Your task to perform on an android device: Open the music app Image 0: 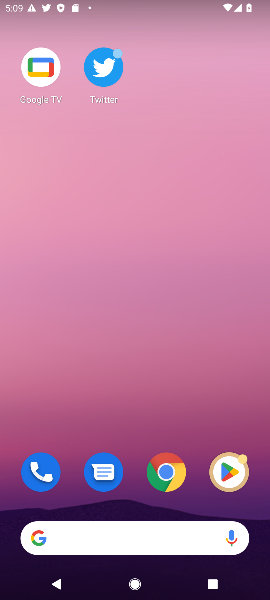
Step 0: click (224, 478)
Your task to perform on an android device: Open the music app Image 1: 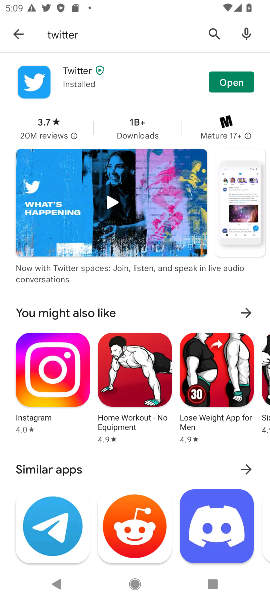
Step 1: click (217, 37)
Your task to perform on an android device: Open the music app Image 2: 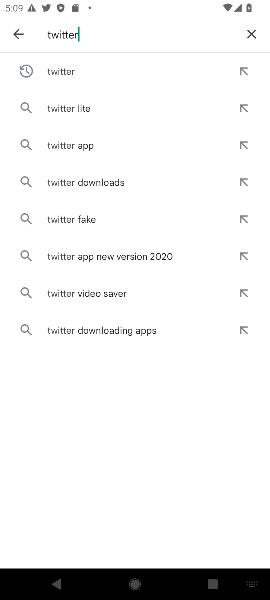
Step 2: click (255, 31)
Your task to perform on an android device: Open the music app Image 3: 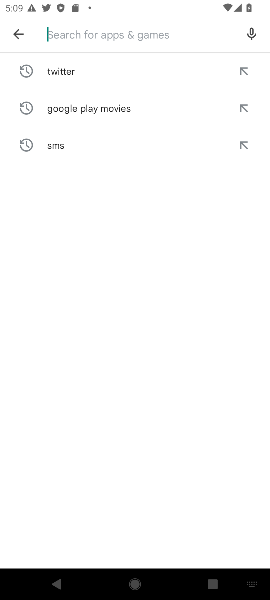
Step 3: type "music"
Your task to perform on an android device: Open the music app Image 4: 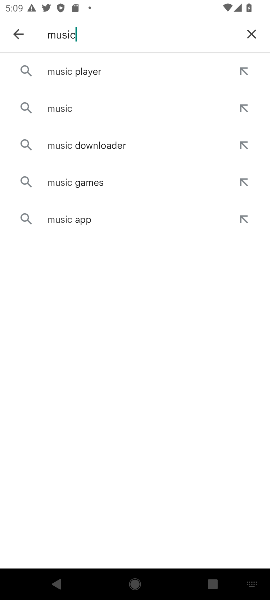
Step 4: click (102, 112)
Your task to perform on an android device: Open the music app Image 5: 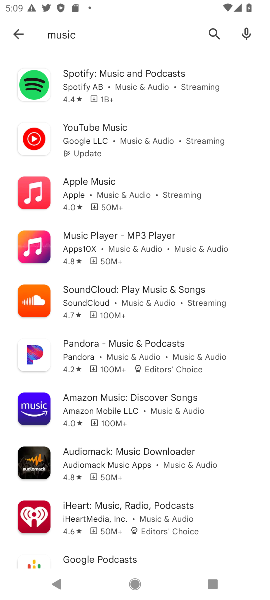
Step 5: click (123, 237)
Your task to perform on an android device: Open the music app Image 6: 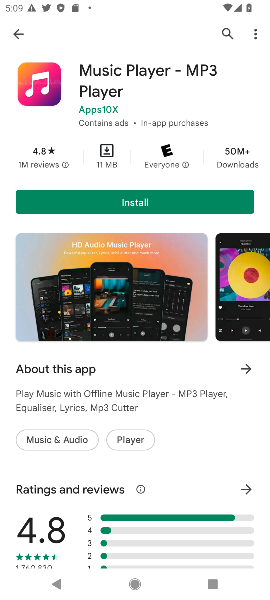
Step 6: click (146, 209)
Your task to perform on an android device: Open the music app Image 7: 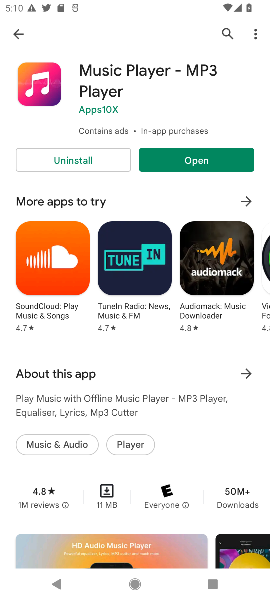
Step 7: click (199, 162)
Your task to perform on an android device: Open the music app Image 8: 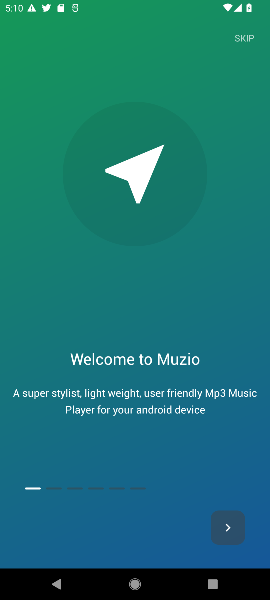
Step 8: click (227, 540)
Your task to perform on an android device: Open the music app Image 9: 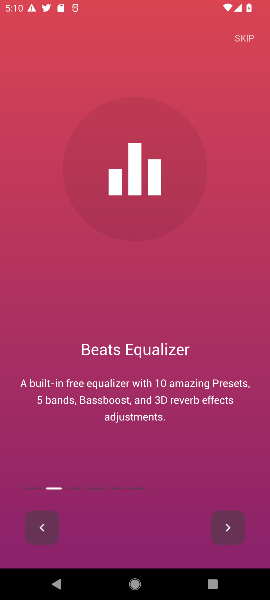
Step 9: click (227, 540)
Your task to perform on an android device: Open the music app Image 10: 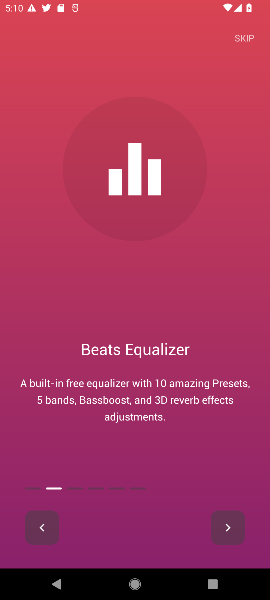
Step 10: click (227, 540)
Your task to perform on an android device: Open the music app Image 11: 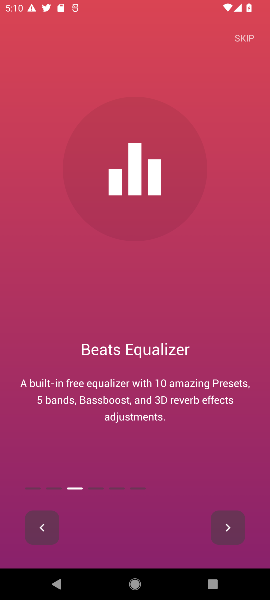
Step 11: click (227, 540)
Your task to perform on an android device: Open the music app Image 12: 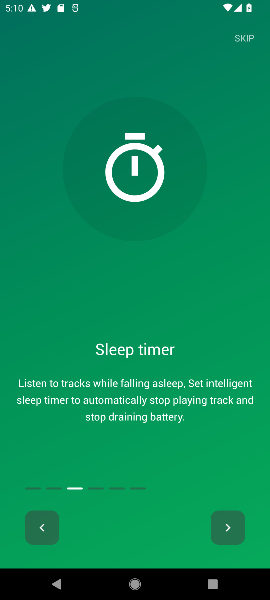
Step 12: click (227, 540)
Your task to perform on an android device: Open the music app Image 13: 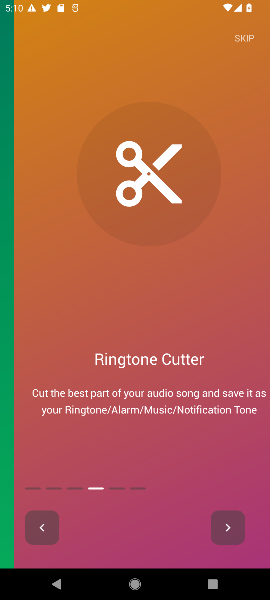
Step 13: click (227, 540)
Your task to perform on an android device: Open the music app Image 14: 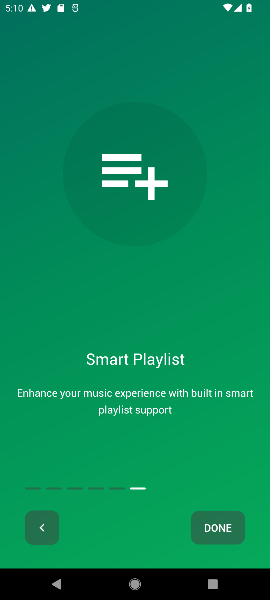
Step 14: click (222, 520)
Your task to perform on an android device: Open the music app Image 15: 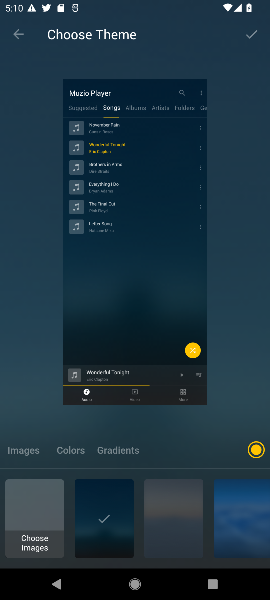
Step 15: click (26, 33)
Your task to perform on an android device: Open the music app Image 16: 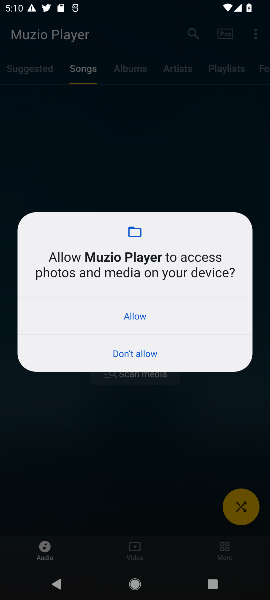
Step 16: click (136, 314)
Your task to perform on an android device: Open the music app Image 17: 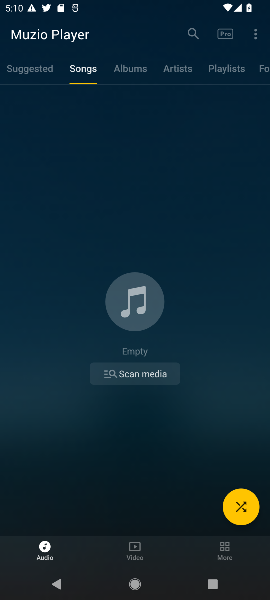
Step 17: task complete